Your task to perform on an android device: turn off notifications settings in the gmail app Image 0: 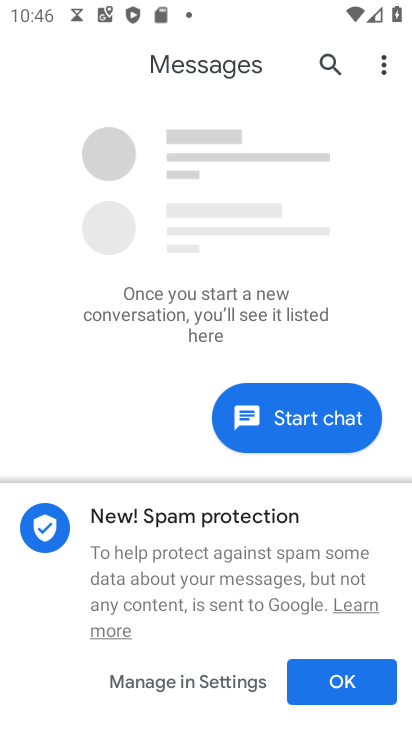
Step 0: press home button
Your task to perform on an android device: turn off notifications settings in the gmail app Image 1: 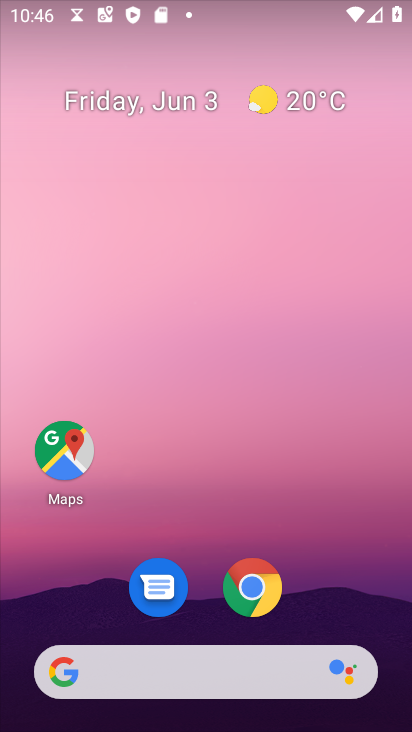
Step 1: click (138, 1)
Your task to perform on an android device: turn off notifications settings in the gmail app Image 2: 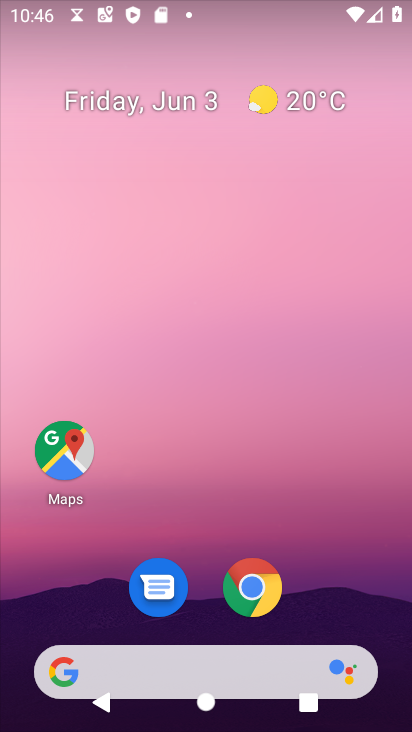
Step 2: drag from (351, 535) to (290, 63)
Your task to perform on an android device: turn off notifications settings in the gmail app Image 3: 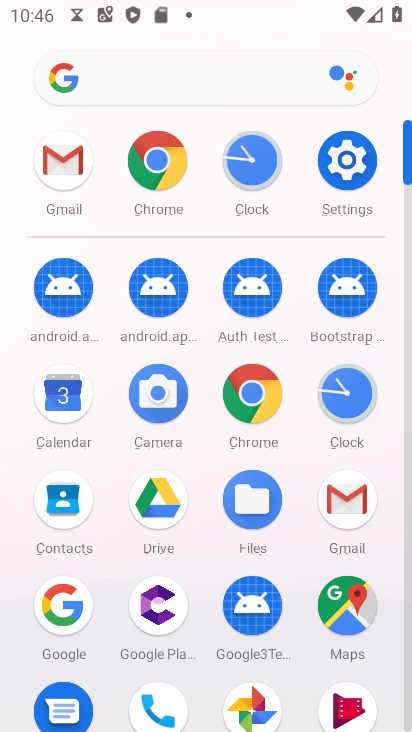
Step 3: click (355, 512)
Your task to perform on an android device: turn off notifications settings in the gmail app Image 4: 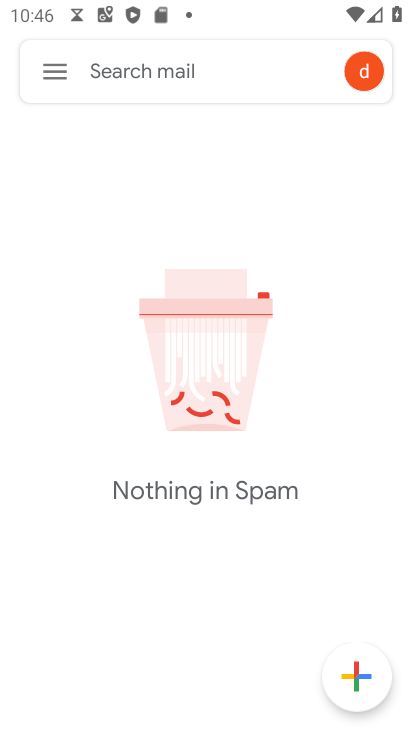
Step 4: click (44, 59)
Your task to perform on an android device: turn off notifications settings in the gmail app Image 5: 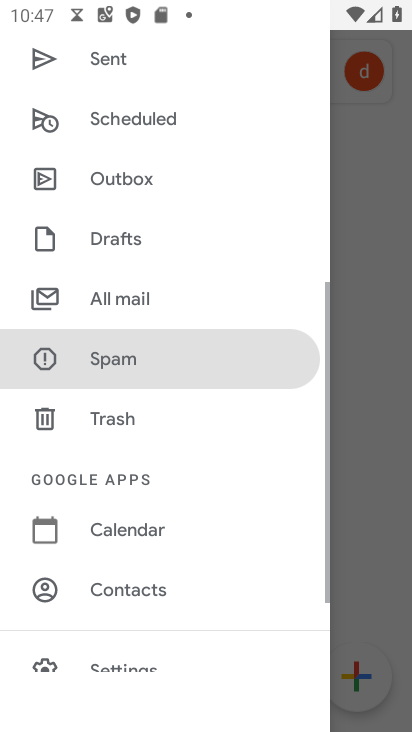
Step 5: drag from (210, 509) to (198, 67)
Your task to perform on an android device: turn off notifications settings in the gmail app Image 6: 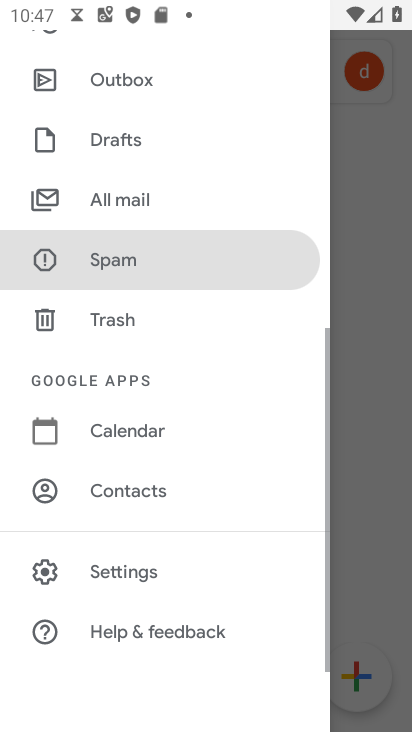
Step 6: click (178, 562)
Your task to perform on an android device: turn off notifications settings in the gmail app Image 7: 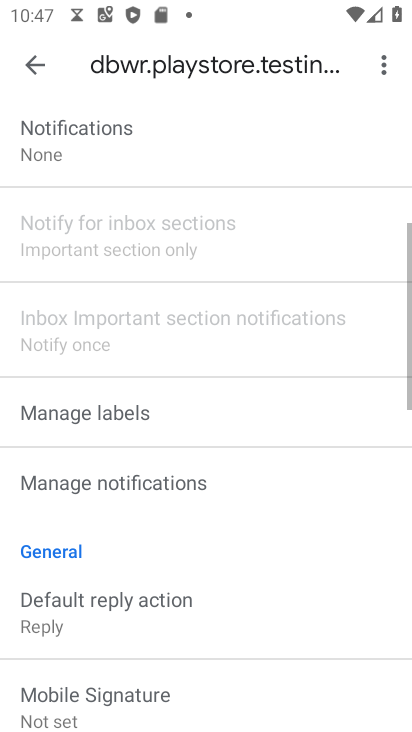
Step 7: click (190, 473)
Your task to perform on an android device: turn off notifications settings in the gmail app Image 8: 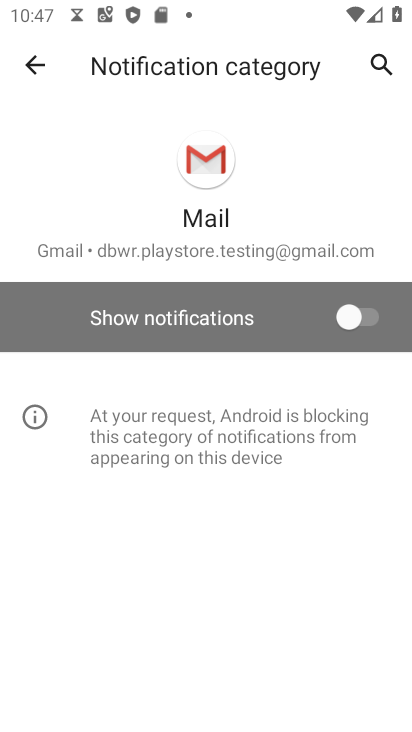
Step 8: task complete